Your task to perform on an android device: check out phone information Image 0: 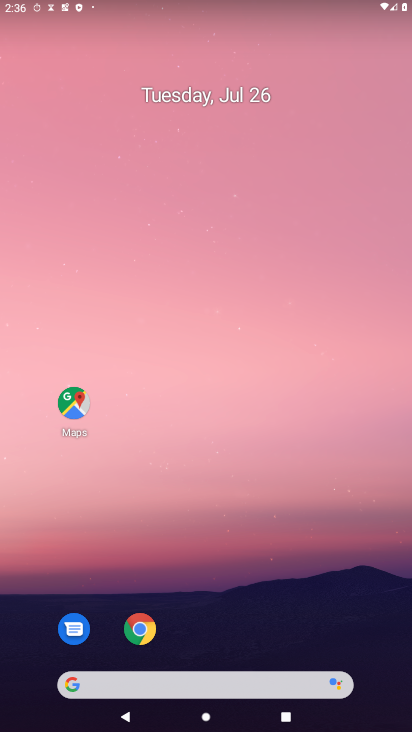
Step 0: drag from (321, 628) to (396, 97)
Your task to perform on an android device: check out phone information Image 1: 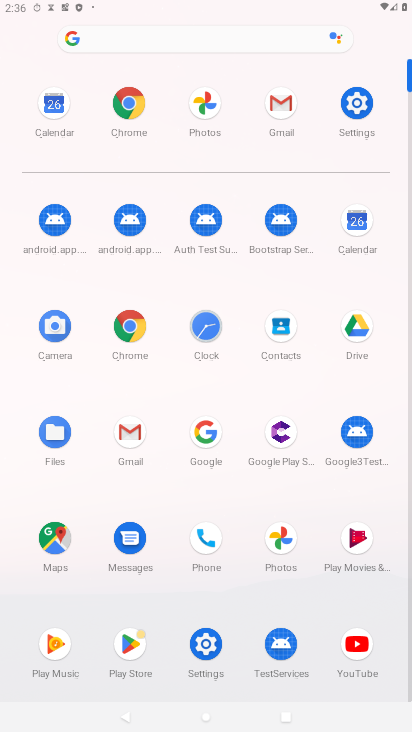
Step 1: click (359, 149)
Your task to perform on an android device: check out phone information Image 2: 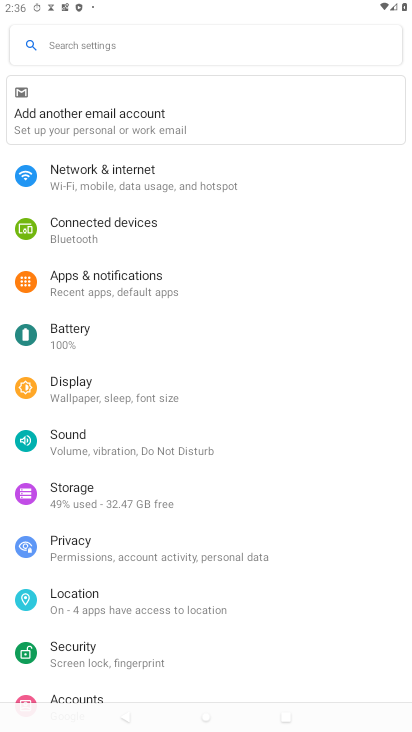
Step 2: drag from (245, 581) to (269, 20)
Your task to perform on an android device: check out phone information Image 3: 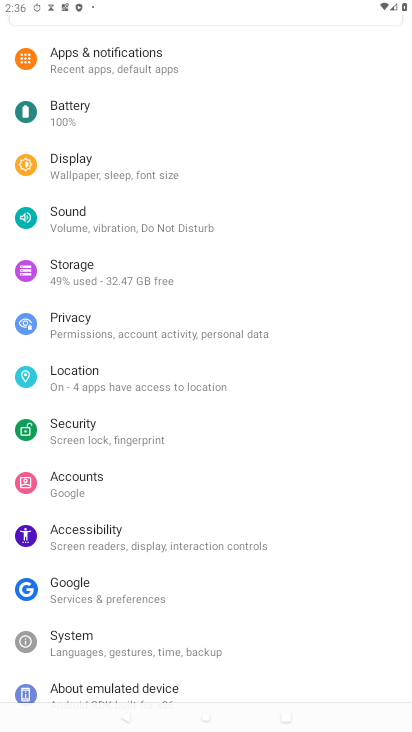
Step 3: click (168, 676)
Your task to perform on an android device: check out phone information Image 4: 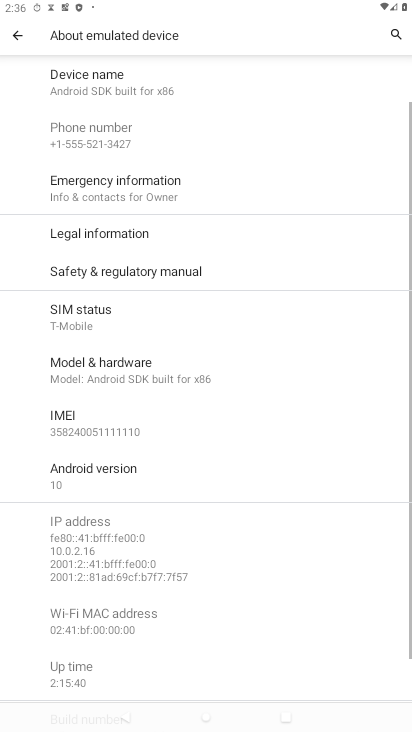
Step 4: task complete